Your task to perform on an android device: open the mobile data screen to see how much data has been used Image 0: 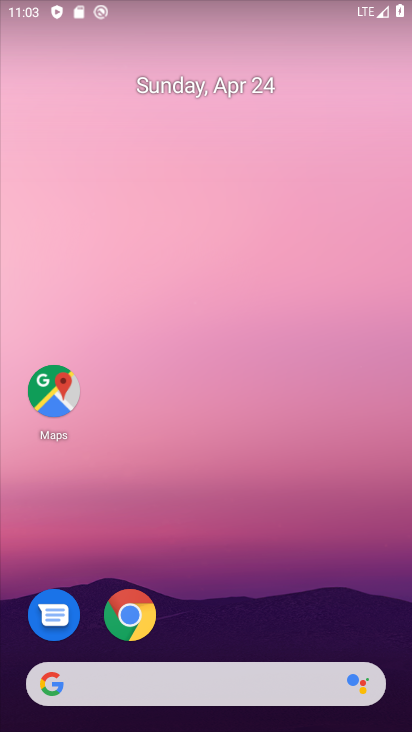
Step 0: click (60, 386)
Your task to perform on an android device: open the mobile data screen to see how much data has been used Image 1: 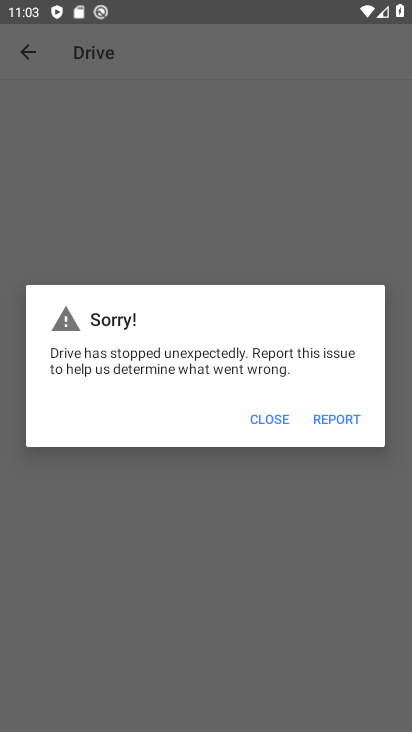
Step 1: press home button
Your task to perform on an android device: open the mobile data screen to see how much data has been used Image 2: 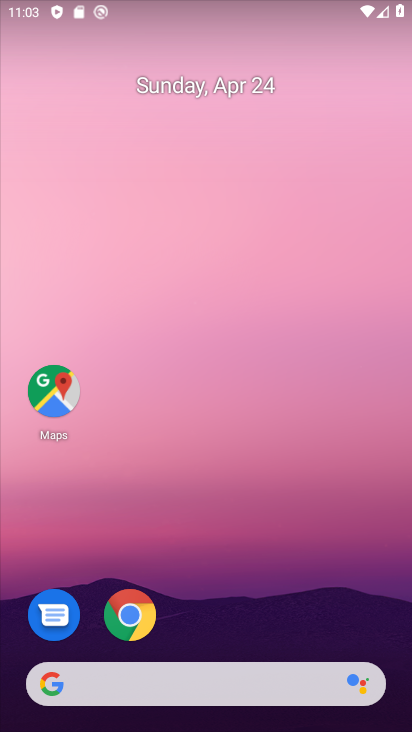
Step 2: drag from (275, 595) to (341, 211)
Your task to perform on an android device: open the mobile data screen to see how much data has been used Image 3: 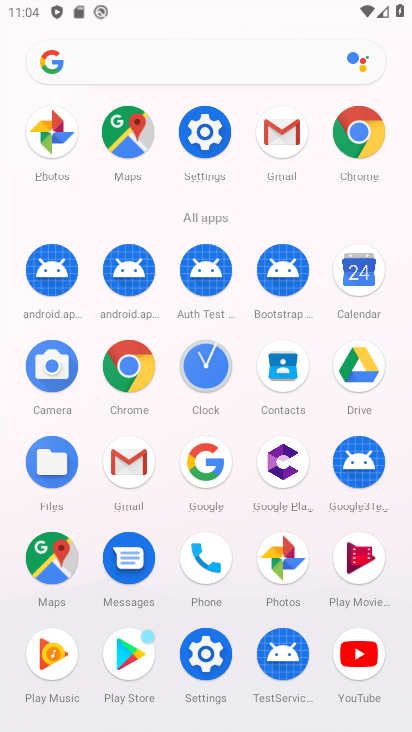
Step 3: click (209, 150)
Your task to perform on an android device: open the mobile data screen to see how much data has been used Image 4: 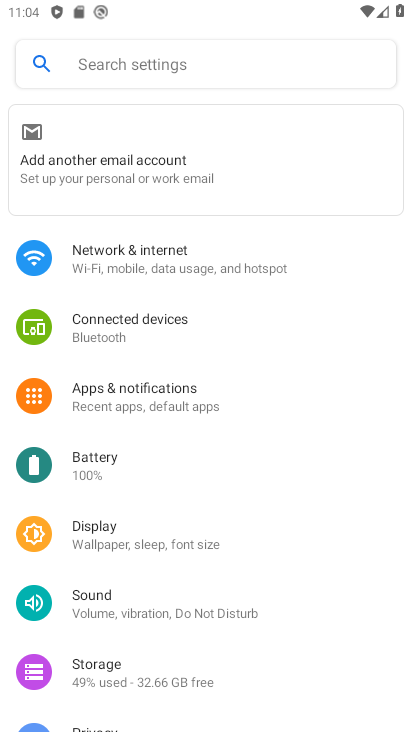
Step 4: click (182, 465)
Your task to perform on an android device: open the mobile data screen to see how much data has been used Image 5: 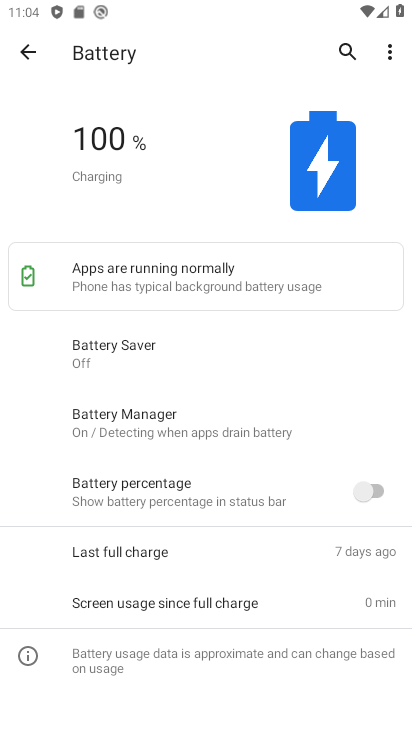
Step 5: click (177, 427)
Your task to perform on an android device: open the mobile data screen to see how much data has been used Image 6: 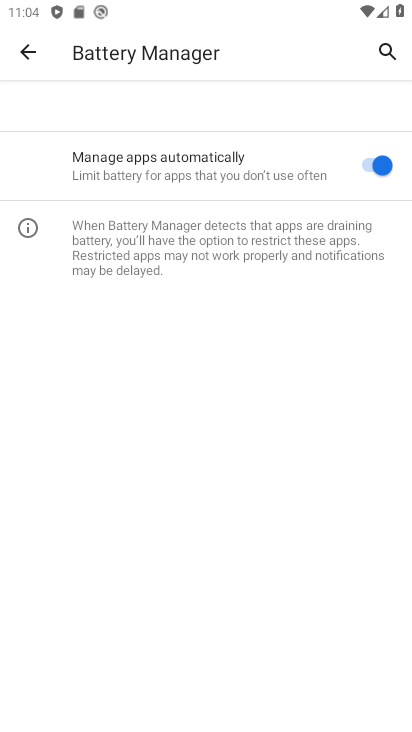
Step 6: click (156, 156)
Your task to perform on an android device: open the mobile data screen to see how much data has been used Image 7: 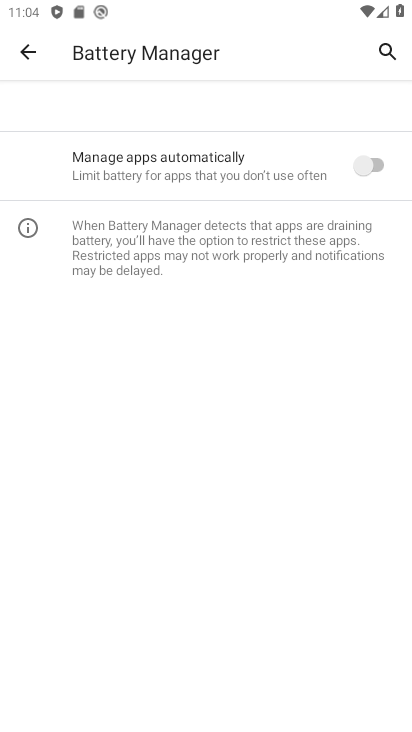
Step 7: click (156, 156)
Your task to perform on an android device: open the mobile data screen to see how much data has been used Image 8: 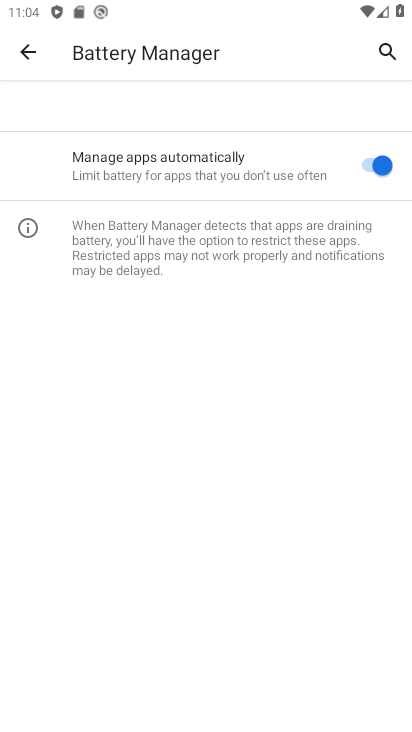
Step 8: click (47, 63)
Your task to perform on an android device: open the mobile data screen to see how much data has been used Image 9: 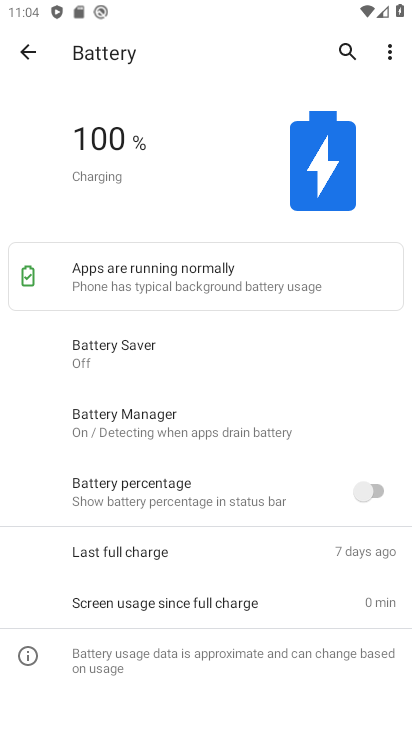
Step 9: click (224, 615)
Your task to perform on an android device: open the mobile data screen to see how much data has been used Image 10: 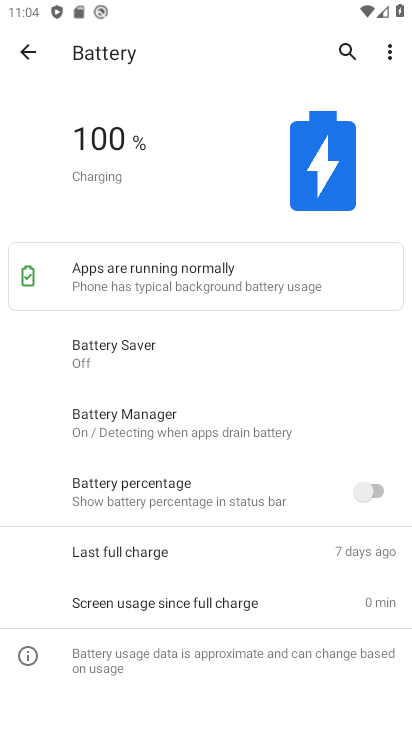
Step 10: click (204, 600)
Your task to perform on an android device: open the mobile data screen to see how much data has been used Image 11: 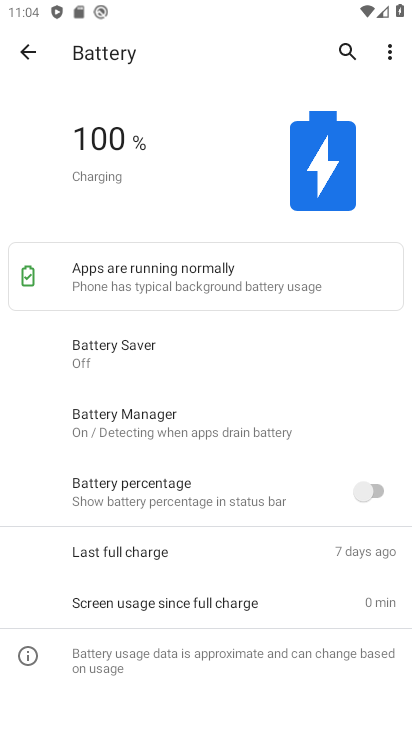
Step 11: task complete